Your task to perform on an android device: Find the nearest electronics store that's open now Image 0: 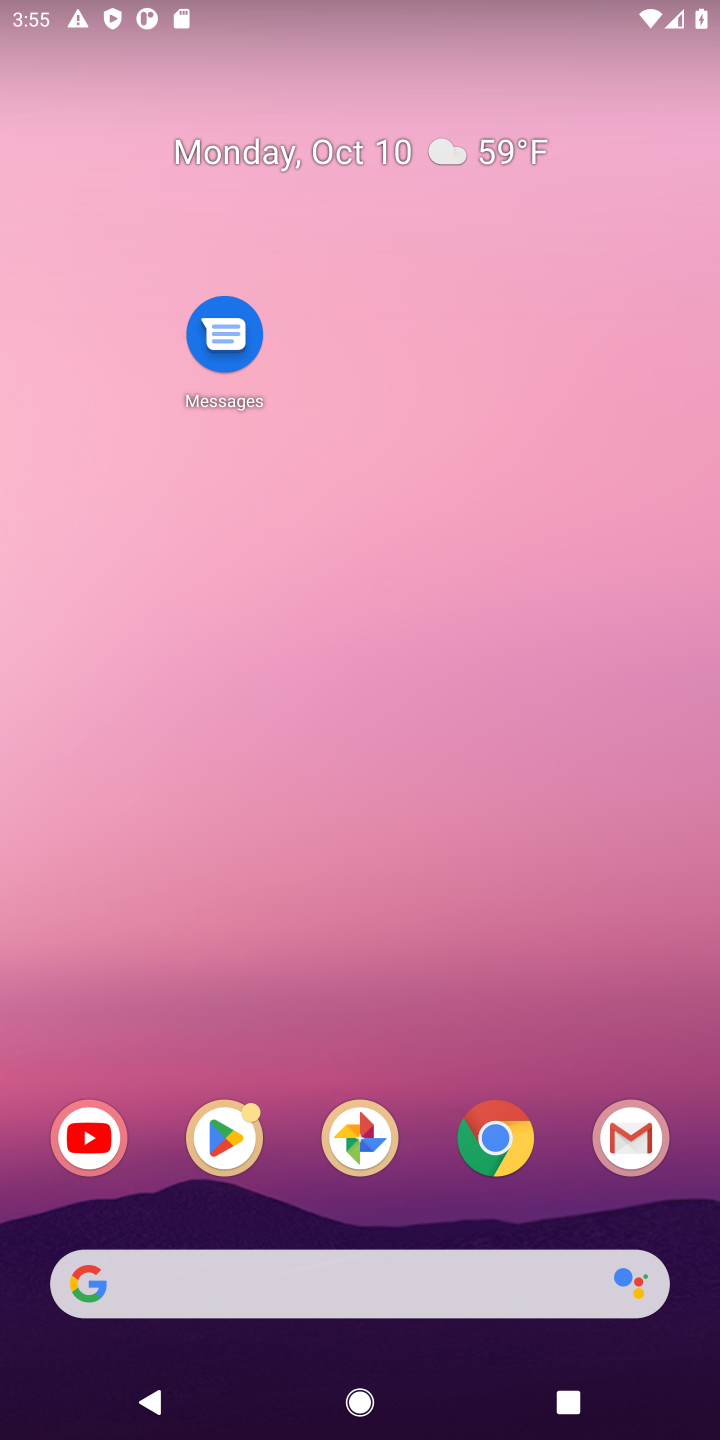
Step 0: drag from (298, 1115) to (272, 252)
Your task to perform on an android device: Find the nearest electronics store that's open now Image 1: 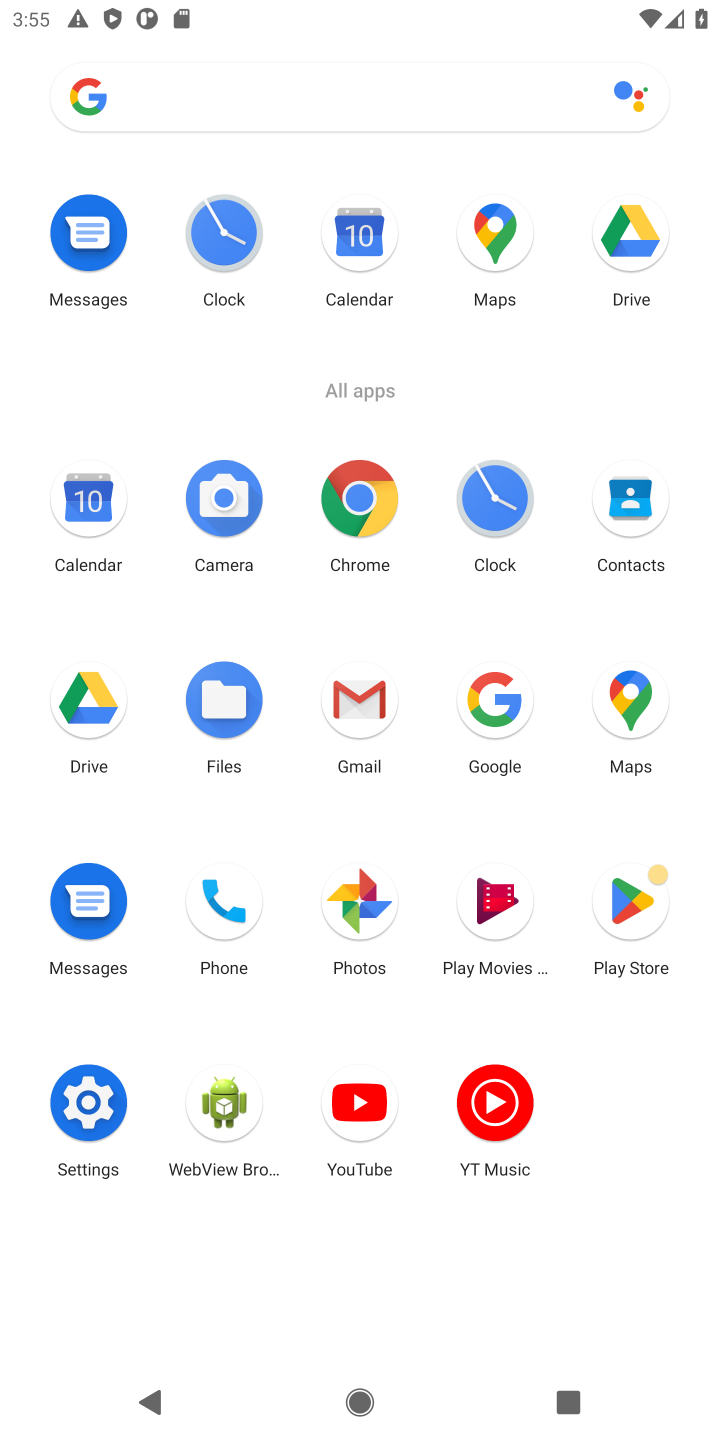
Step 1: click (482, 697)
Your task to perform on an android device: Find the nearest electronics store that's open now Image 2: 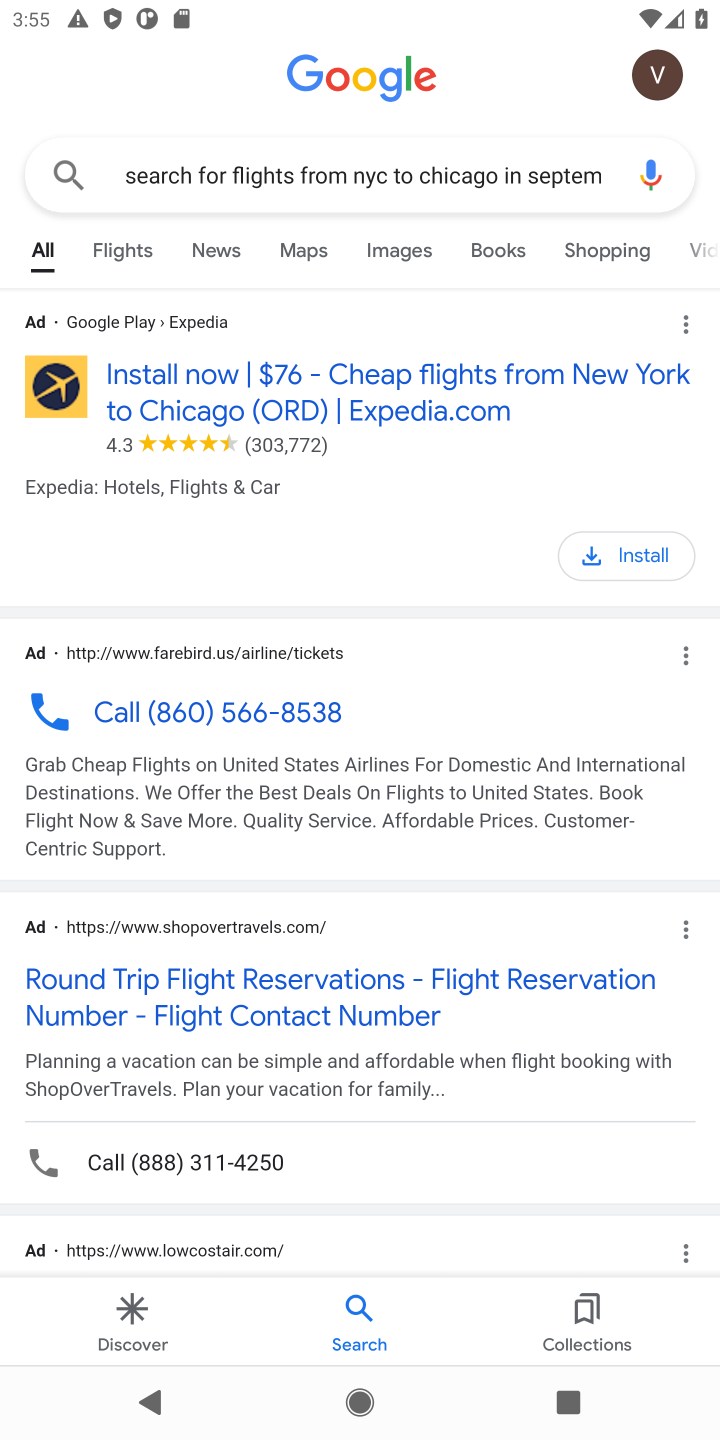
Step 2: click (362, 168)
Your task to perform on an android device: Find the nearest electronics store that's open now Image 3: 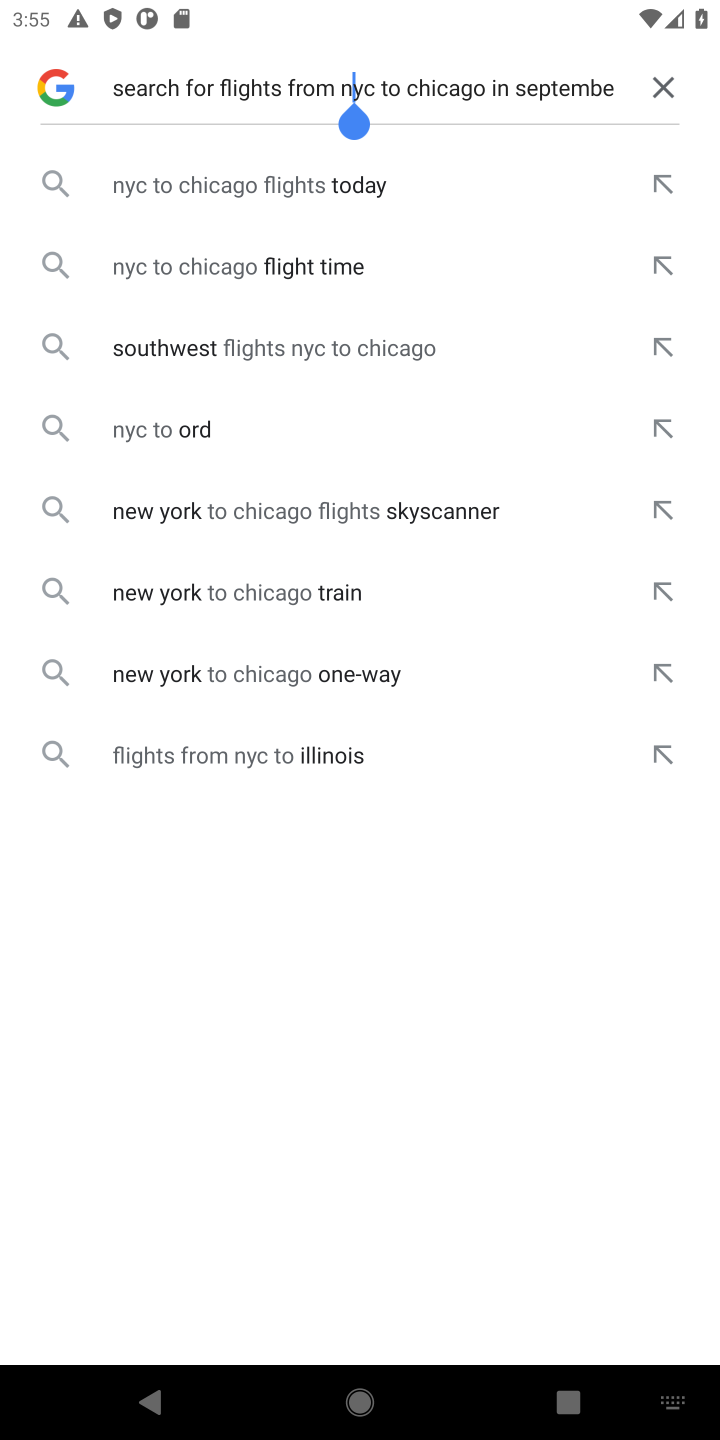
Step 3: click (639, 168)
Your task to perform on an android device: Find the nearest electronics store that's open now Image 4: 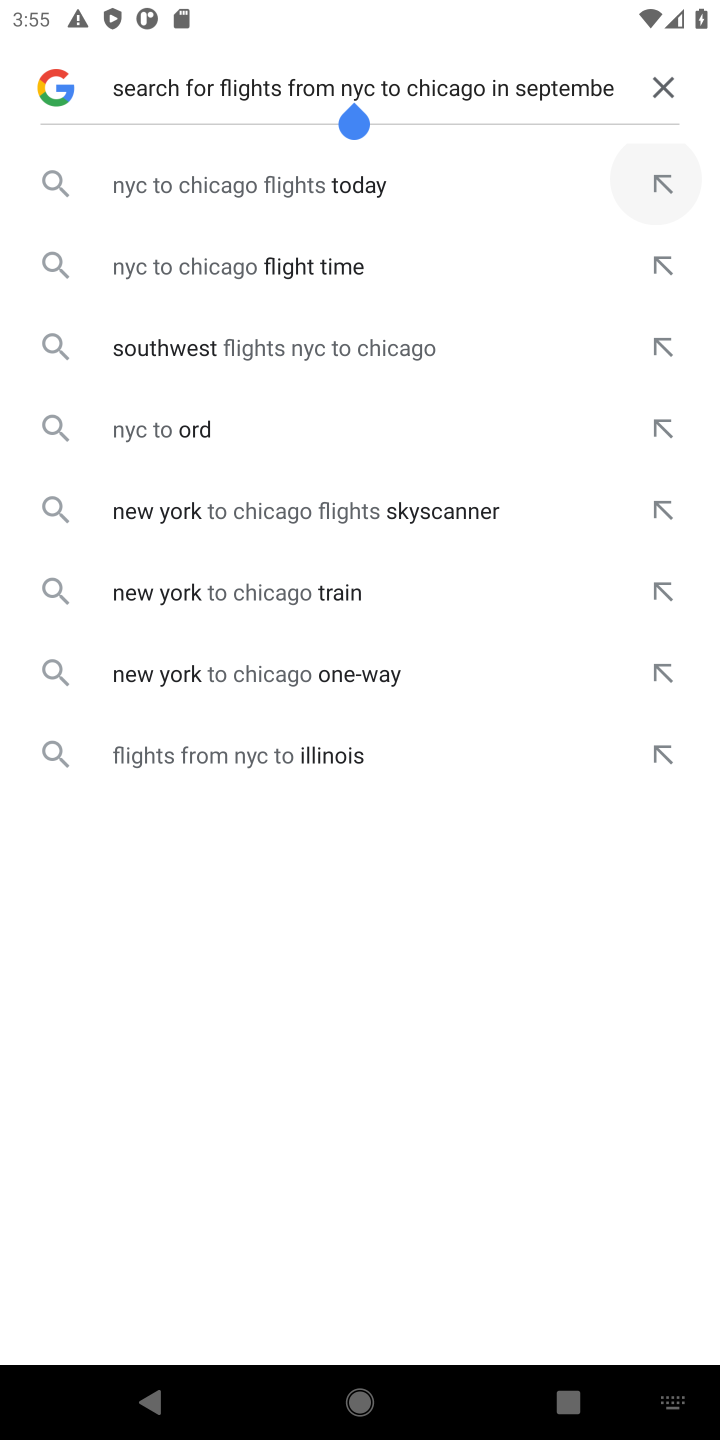
Step 4: click (657, 97)
Your task to perform on an android device: Find the nearest electronics store that's open now Image 5: 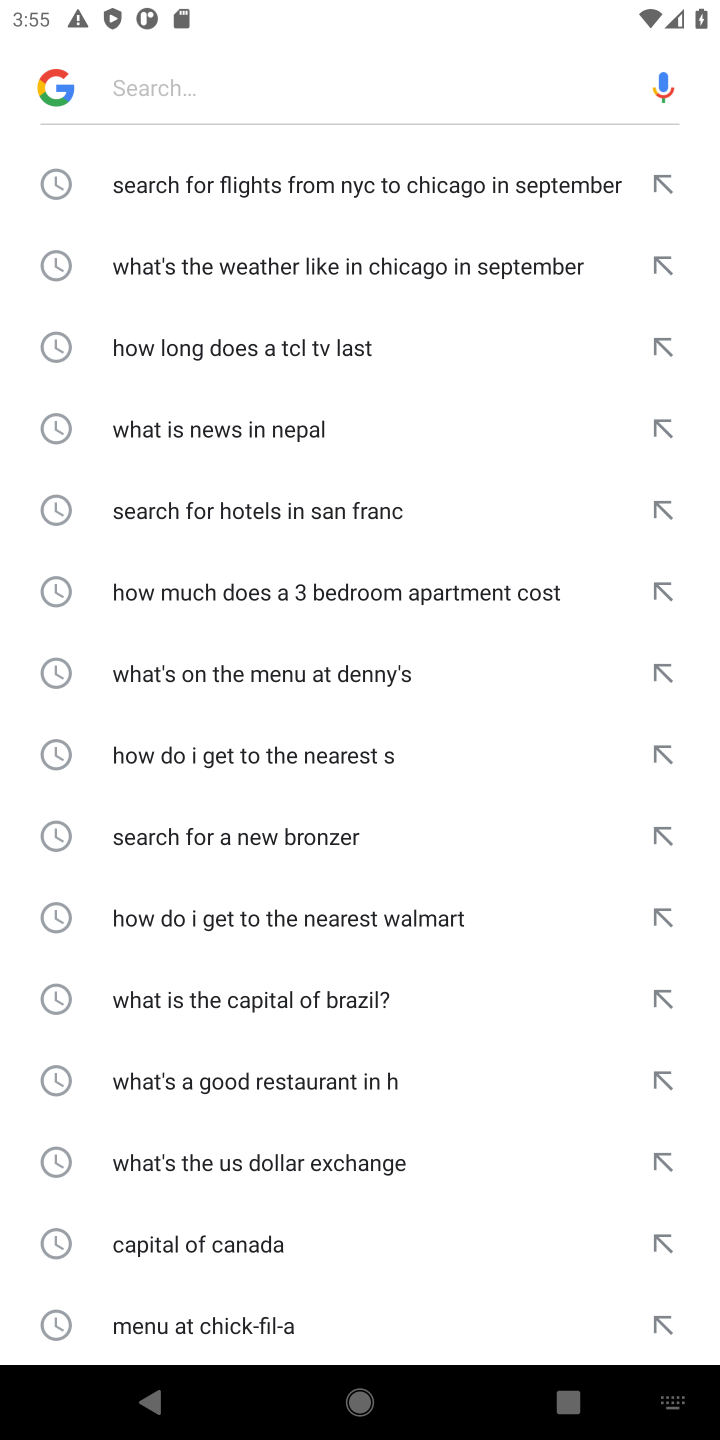
Step 5: type "Find the nearest electronics store that's open now"
Your task to perform on an android device: Find the nearest electronics store that's open now Image 6: 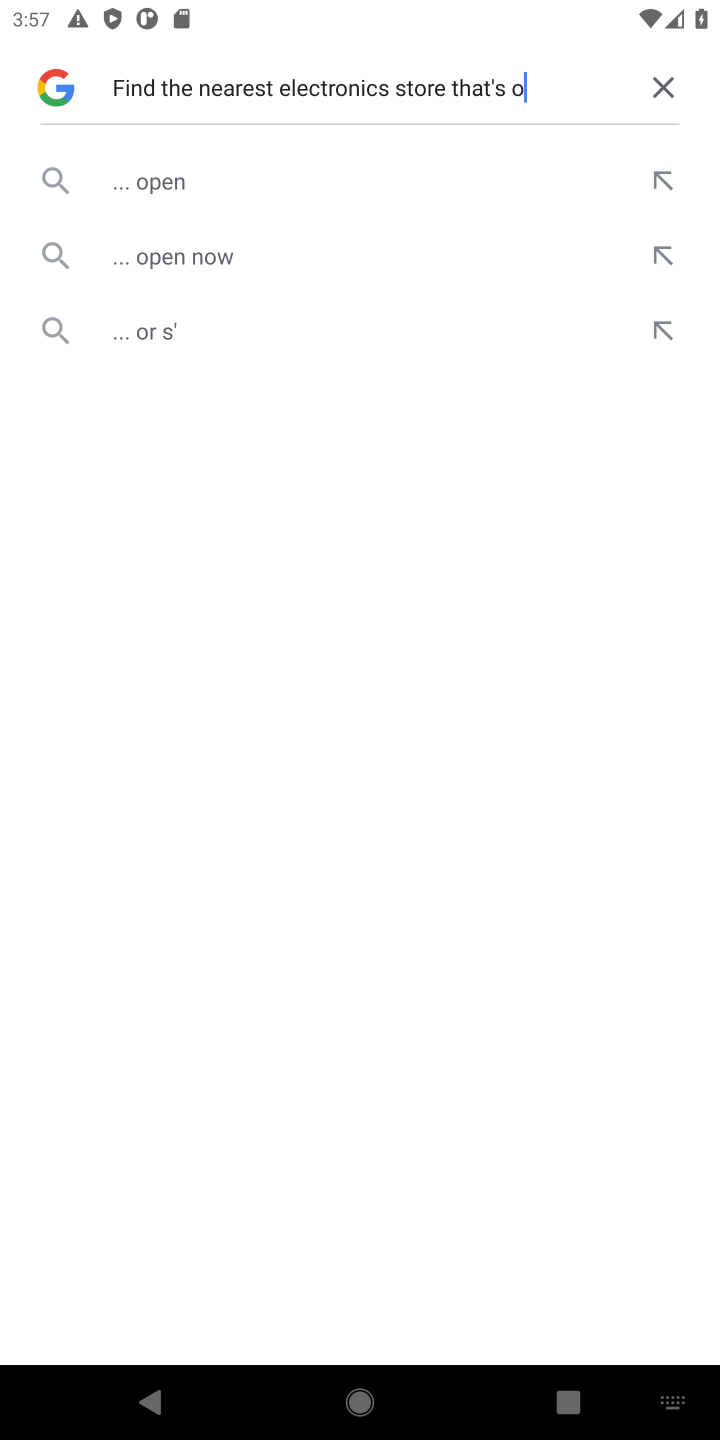
Step 6: click (164, 188)
Your task to perform on an android device: Find the nearest electronics store that's open now Image 7: 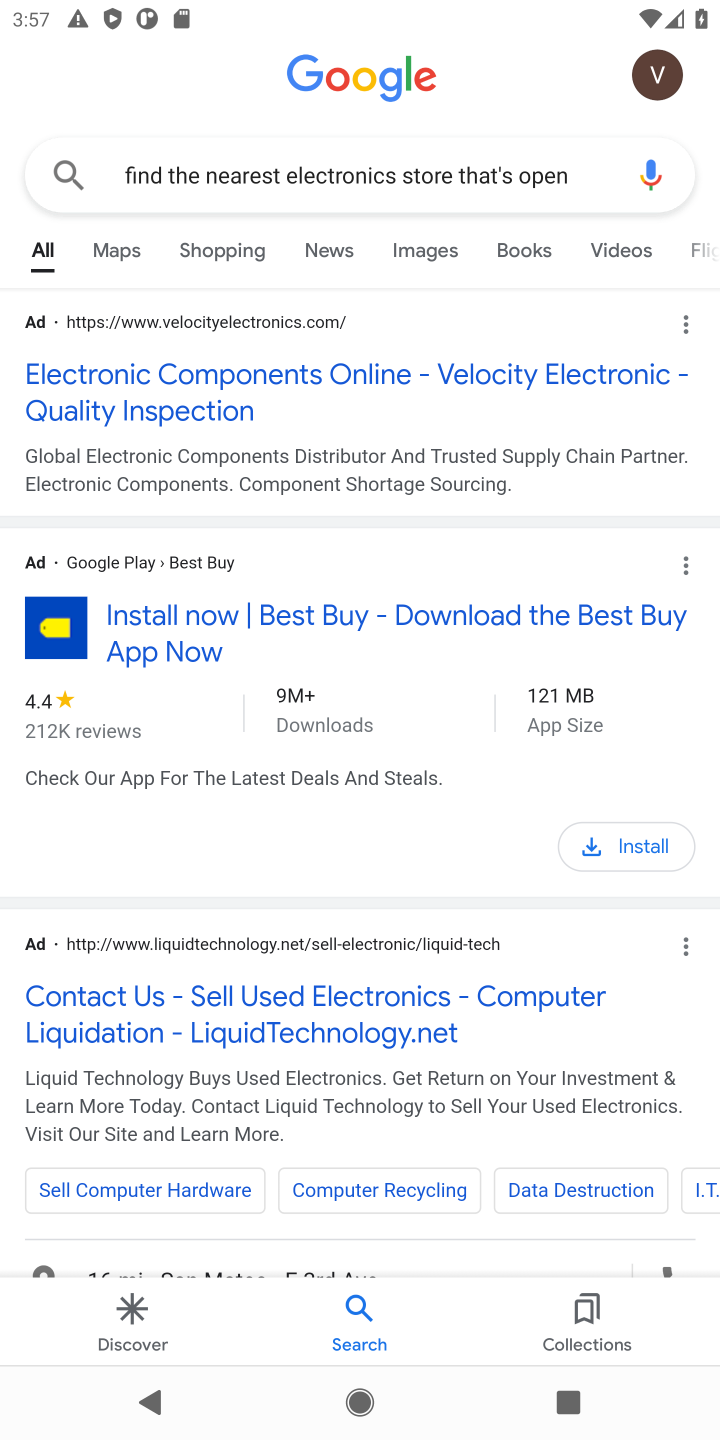
Step 7: click (275, 386)
Your task to perform on an android device: Find the nearest electronics store that's open now Image 8: 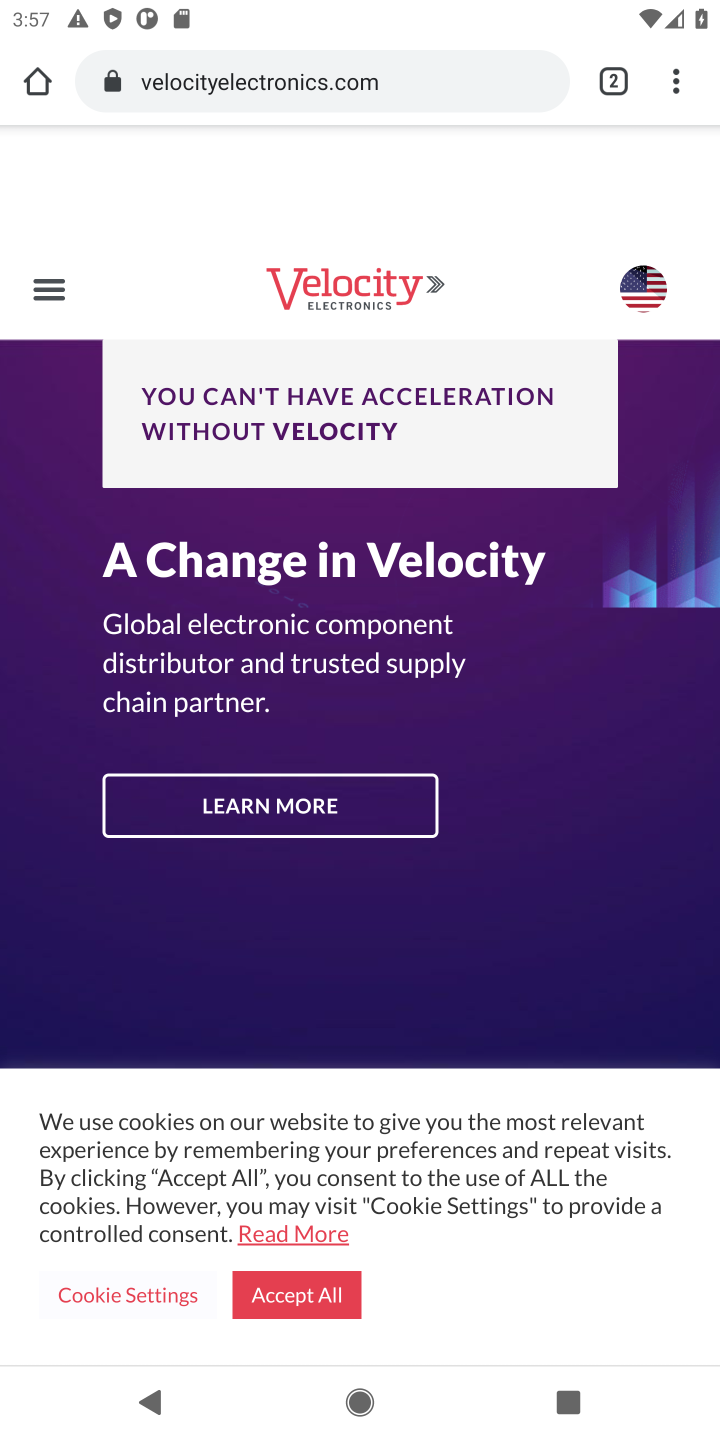
Step 8: task complete